Your task to perform on an android device: Open Youtube and go to the subscriptions tab Image 0: 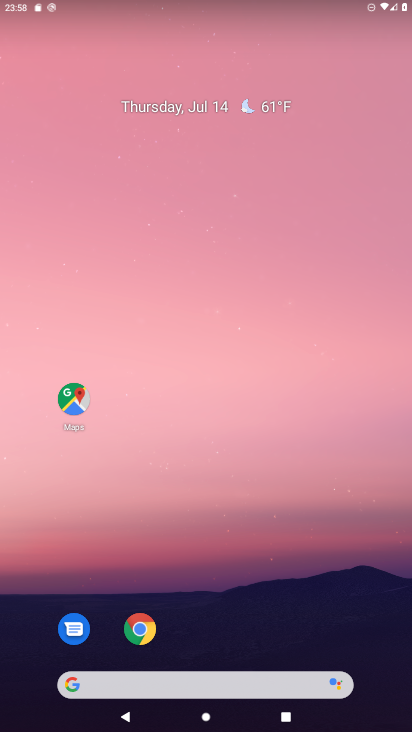
Step 0: drag from (217, 638) to (223, 24)
Your task to perform on an android device: Open Youtube and go to the subscriptions tab Image 1: 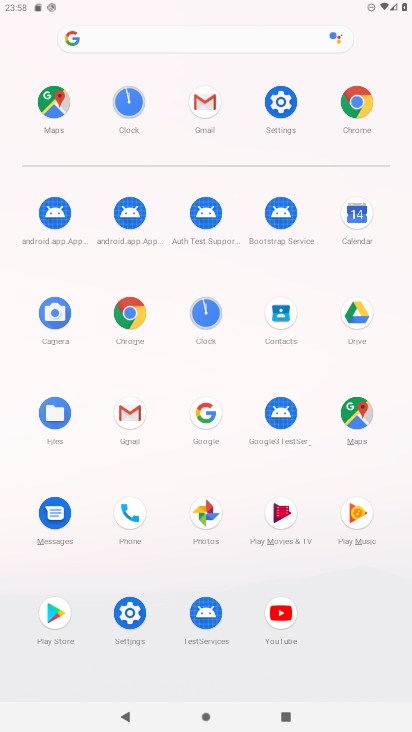
Step 1: click (286, 616)
Your task to perform on an android device: Open Youtube and go to the subscriptions tab Image 2: 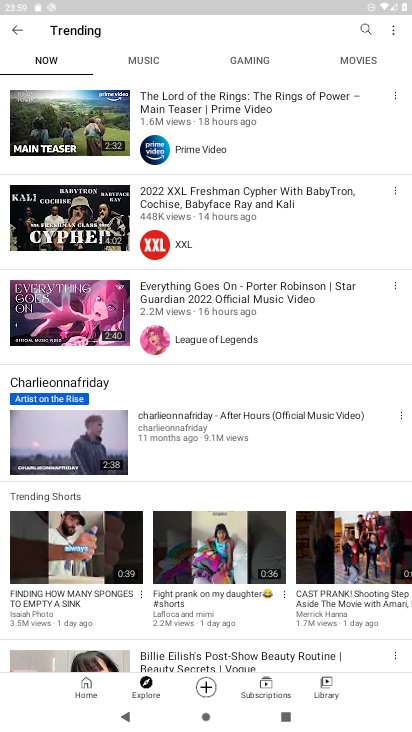
Step 2: click (266, 685)
Your task to perform on an android device: Open Youtube and go to the subscriptions tab Image 3: 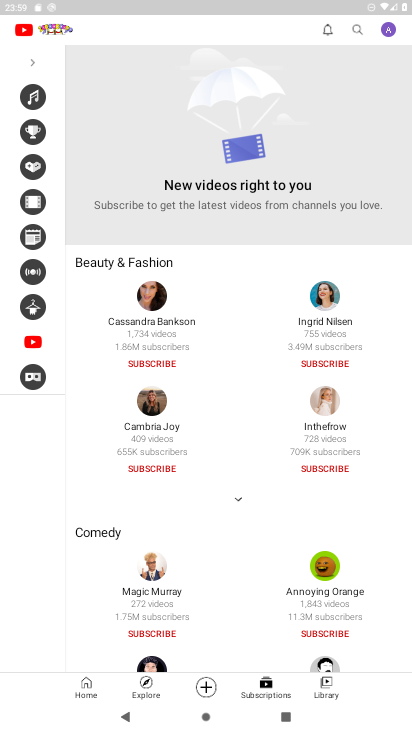
Step 3: task complete